Your task to perform on an android device: turn off wifi Image 0: 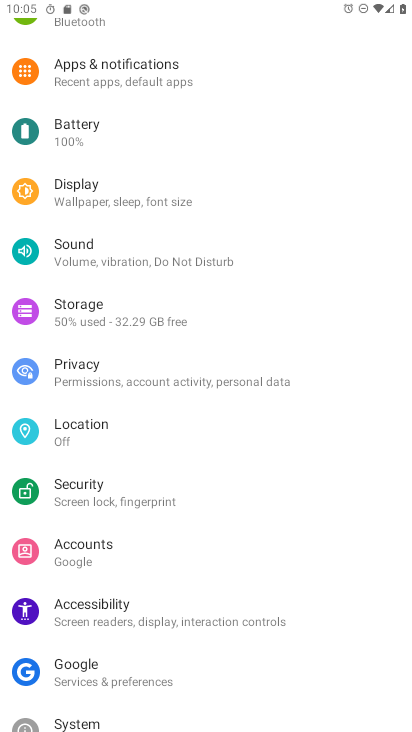
Step 0: press home button
Your task to perform on an android device: turn off wifi Image 1: 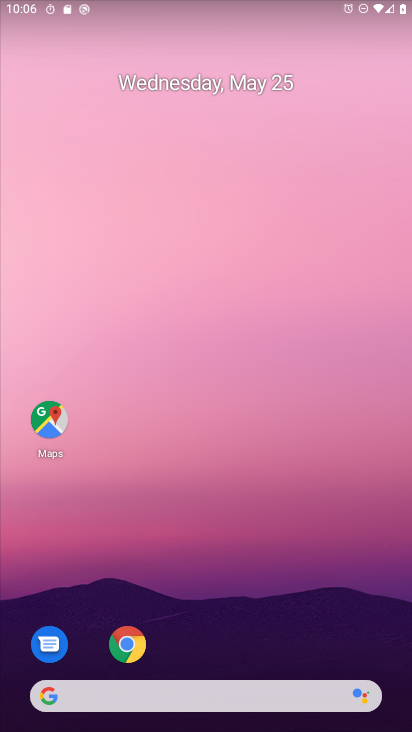
Step 1: drag from (203, 4) to (4, 92)
Your task to perform on an android device: turn off wifi Image 2: 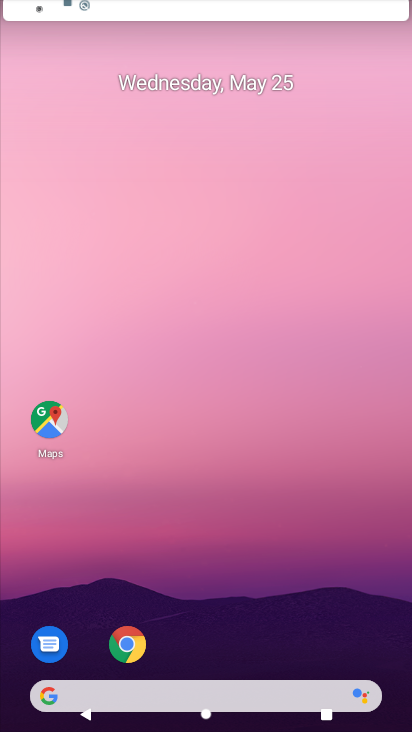
Step 2: click (41, 91)
Your task to perform on an android device: turn off wifi Image 3: 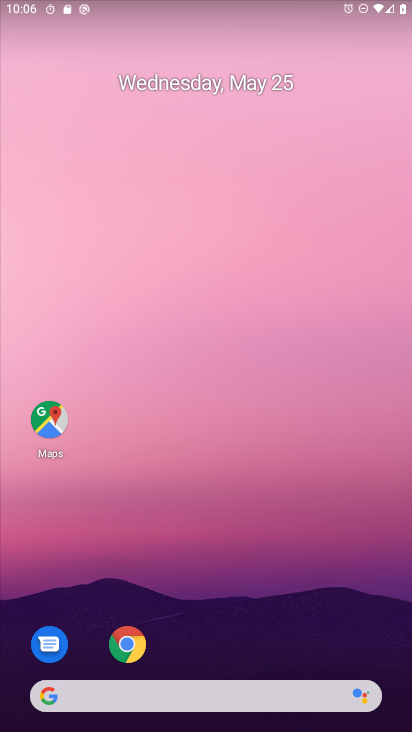
Step 3: drag from (221, 6) to (263, 439)
Your task to perform on an android device: turn off wifi Image 4: 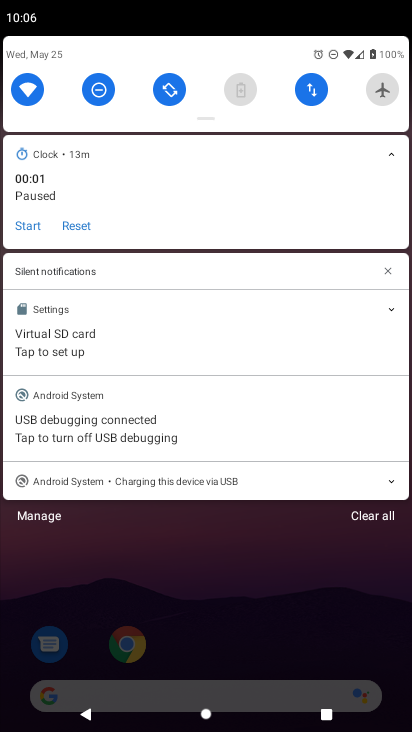
Step 4: click (32, 79)
Your task to perform on an android device: turn off wifi Image 5: 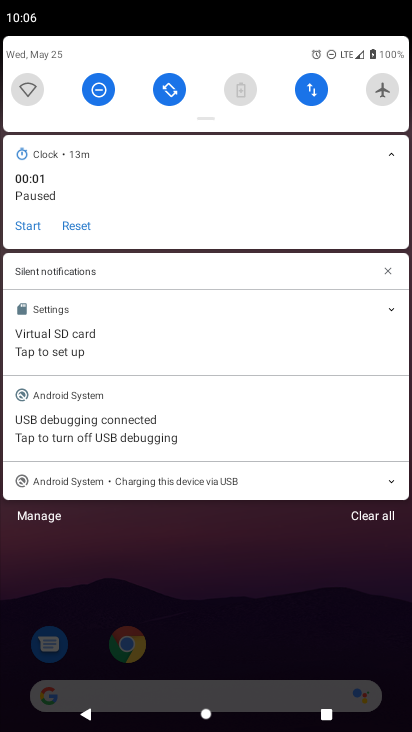
Step 5: task complete